Your task to perform on an android device: toggle airplane mode Image 0: 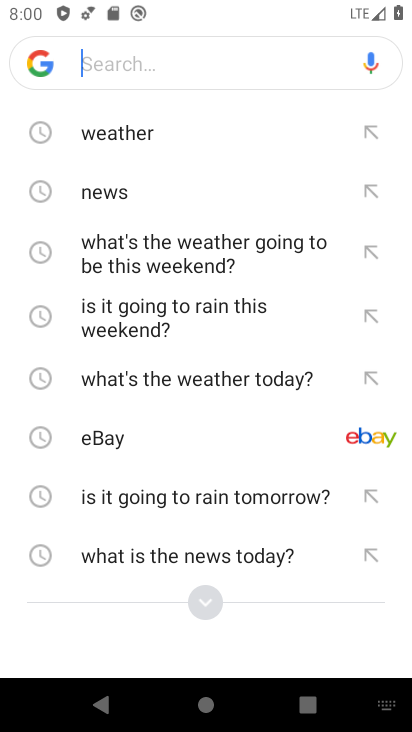
Step 0: press back button
Your task to perform on an android device: toggle airplane mode Image 1: 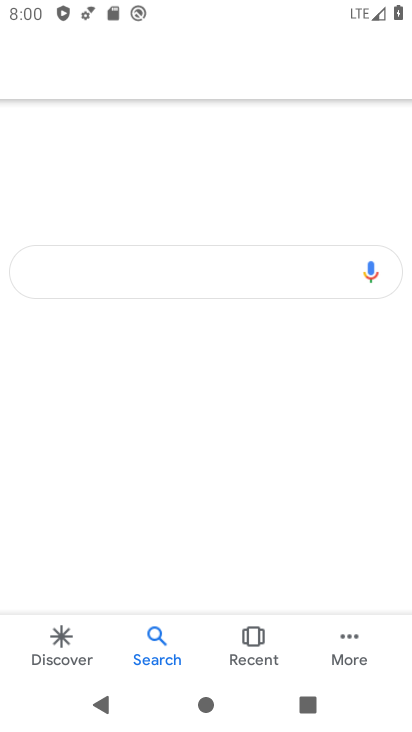
Step 1: press back button
Your task to perform on an android device: toggle airplane mode Image 2: 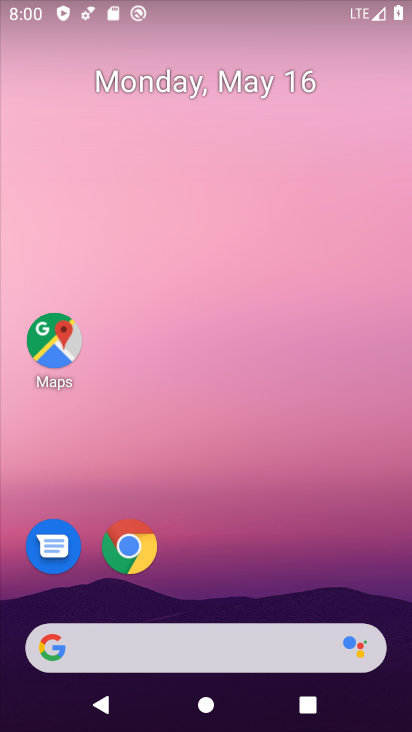
Step 2: drag from (299, 530) to (351, 64)
Your task to perform on an android device: toggle airplane mode Image 3: 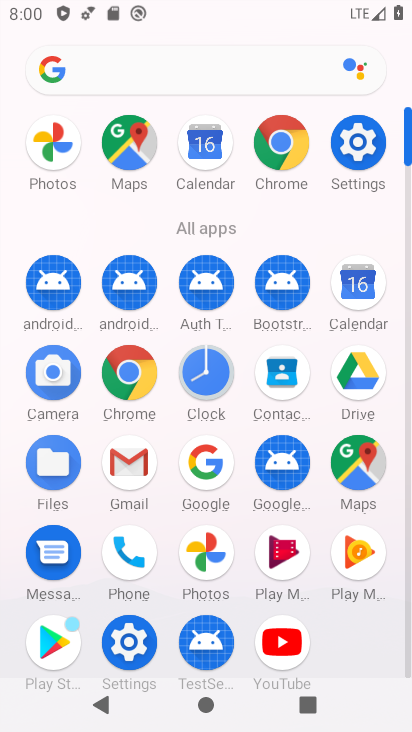
Step 3: click (367, 133)
Your task to perform on an android device: toggle airplane mode Image 4: 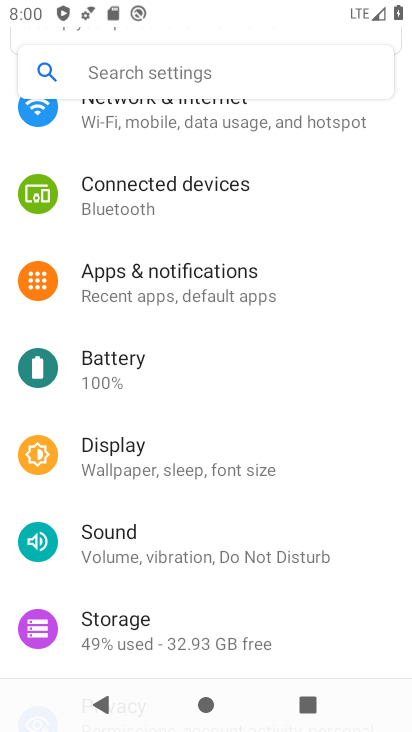
Step 4: drag from (272, 153) to (309, 587)
Your task to perform on an android device: toggle airplane mode Image 5: 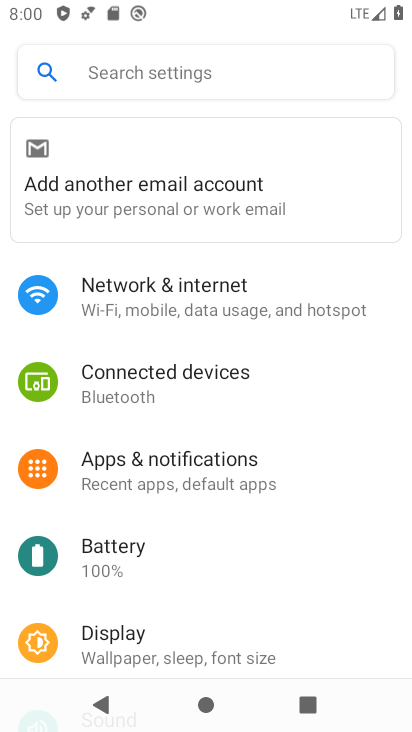
Step 5: click (251, 322)
Your task to perform on an android device: toggle airplane mode Image 6: 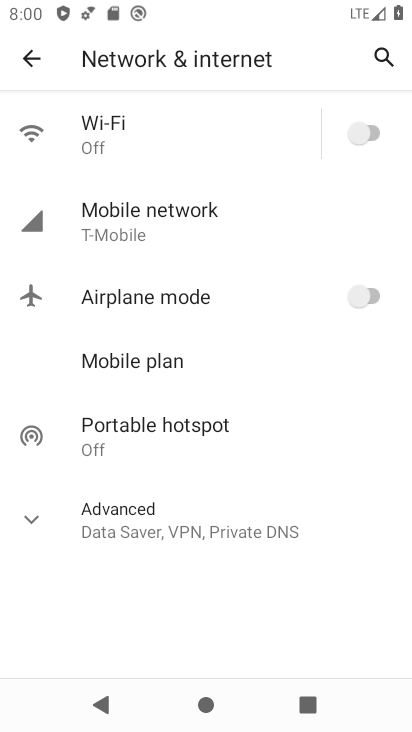
Step 6: click (367, 310)
Your task to perform on an android device: toggle airplane mode Image 7: 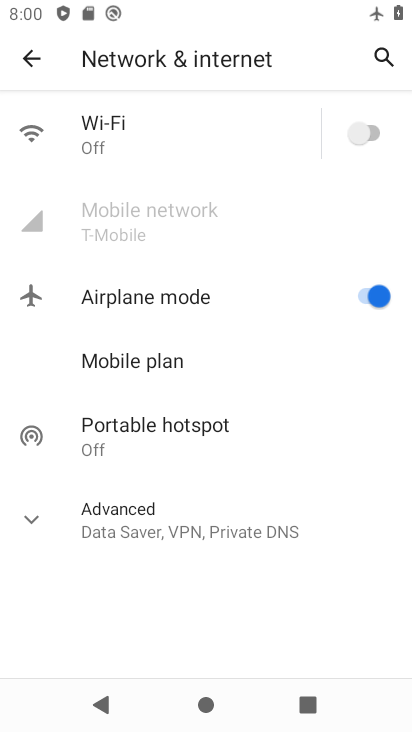
Step 7: click (355, 139)
Your task to perform on an android device: toggle airplane mode Image 8: 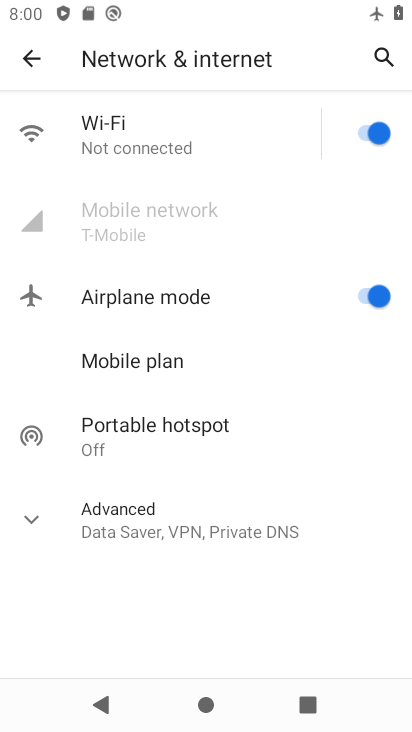
Step 8: task complete